Your task to perform on an android device: Open location settings Image 0: 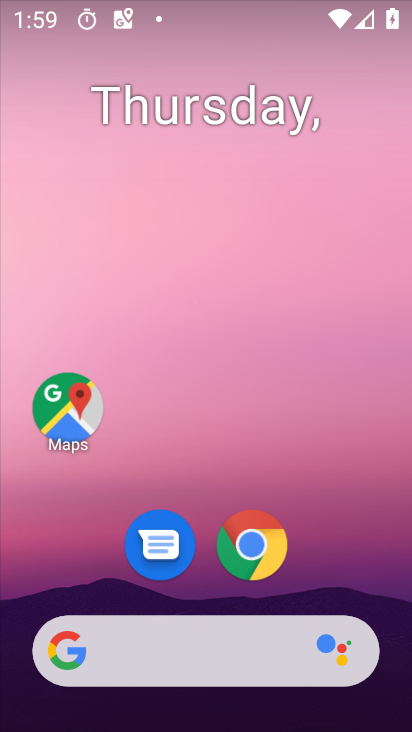
Step 0: drag from (207, 721) to (207, 145)
Your task to perform on an android device: Open location settings Image 1: 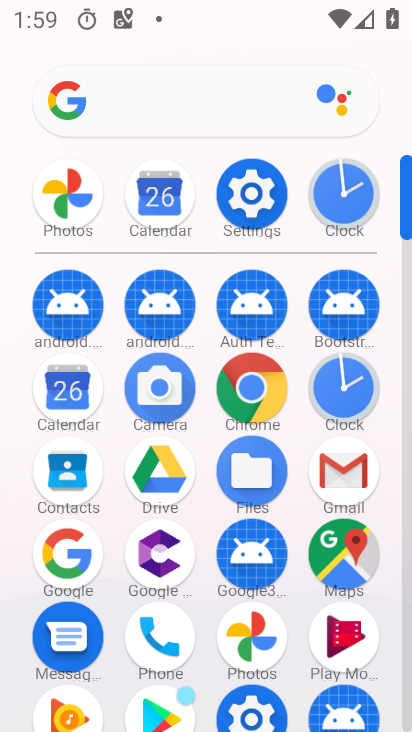
Step 1: click (259, 204)
Your task to perform on an android device: Open location settings Image 2: 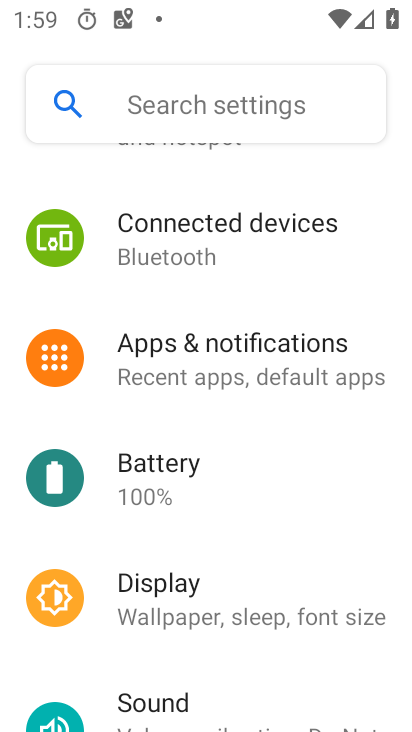
Step 2: drag from (223, 671) to (234, 207)
Your task to perform on an android device: Open location settings Image 3: 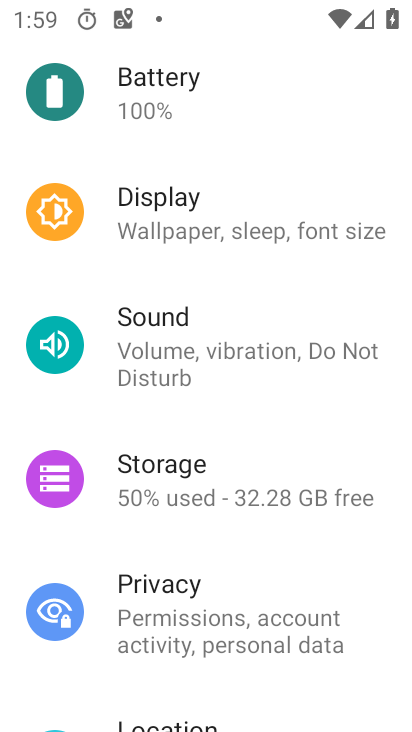
Step 3: drag from (159, 683) to (167, 280)
Your task to perform on an android device: Open location settings Image 4: 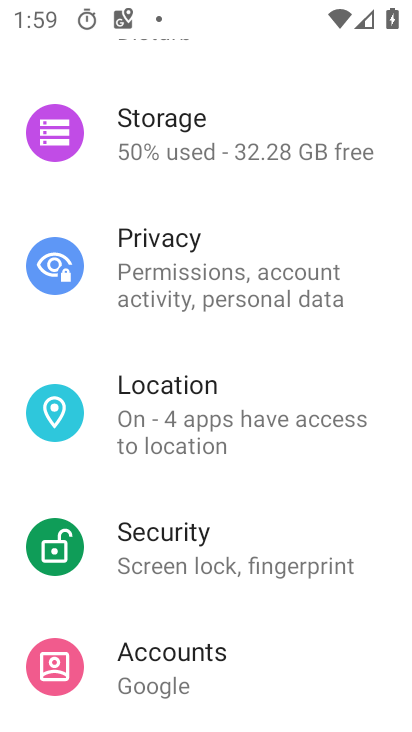
Step 4: click (154, 401)
Your task to perform on an android device: Open location settings Image 5: 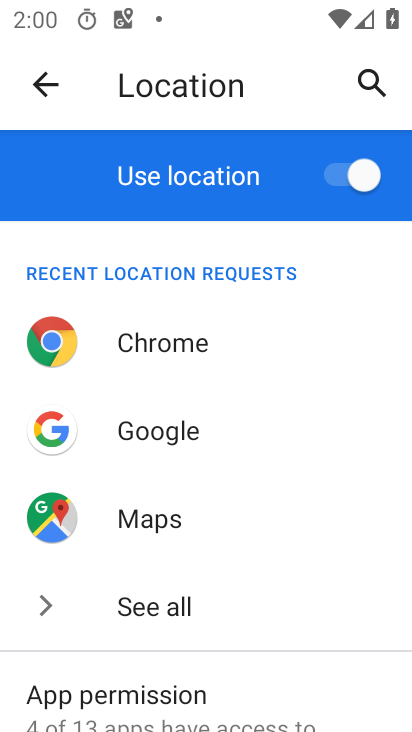
Step 5: task complete